Your task to perform on an android device: Show me popular games on the Play Store Image 0: 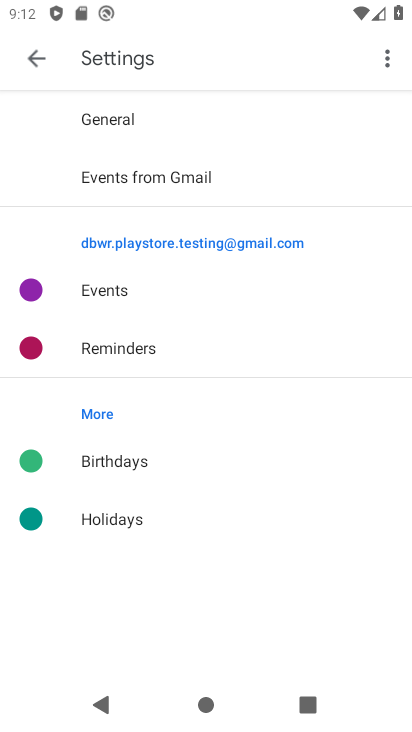
Step 0: press home button
Your task to perform on an android device: Show me popular games on the Play Store Image 1: 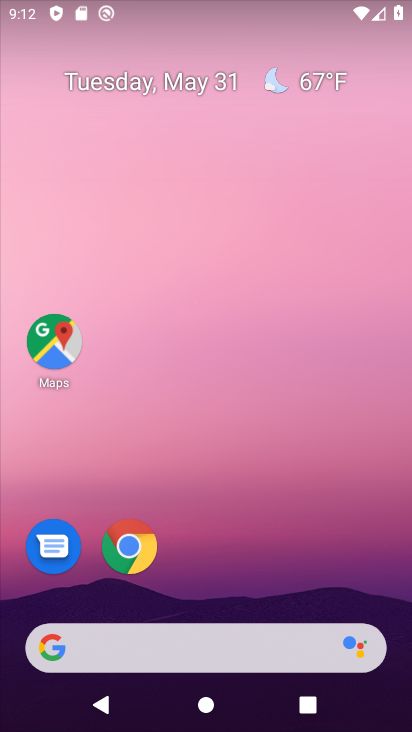
Step 1: drag from (205, 586) to (269, 180)
Your task to perform on an android device: Show me popular games on the Play Store Image 2: 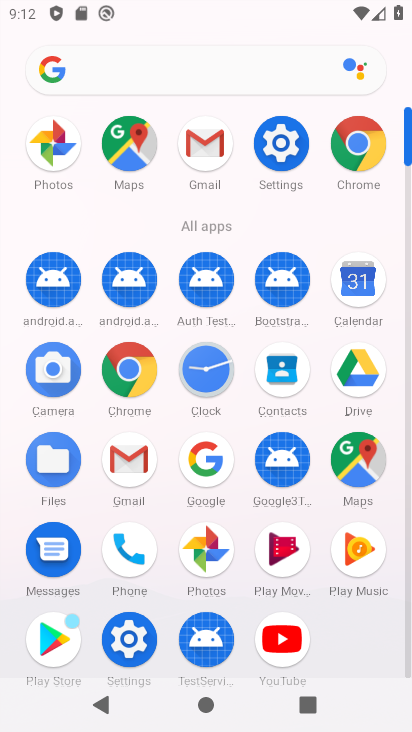
Step 2: click (45, 639)
Your task to perform on an android device: Show me popular games on the Play Store Image 3: 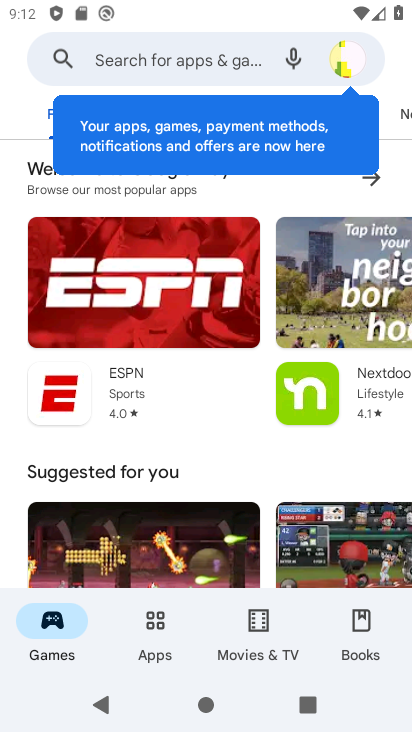
Step 3: drag from (19, 131) to (43, 168)
Your task to perform on an android device: Show me popular games on the Play Store Image 4: 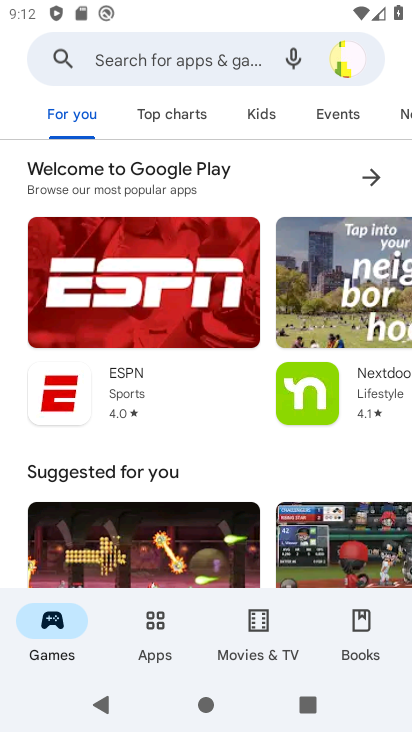
Step 4: click (196, 118)
Your task to perform on an android device: Show me popular games on the Play Store Image 5: 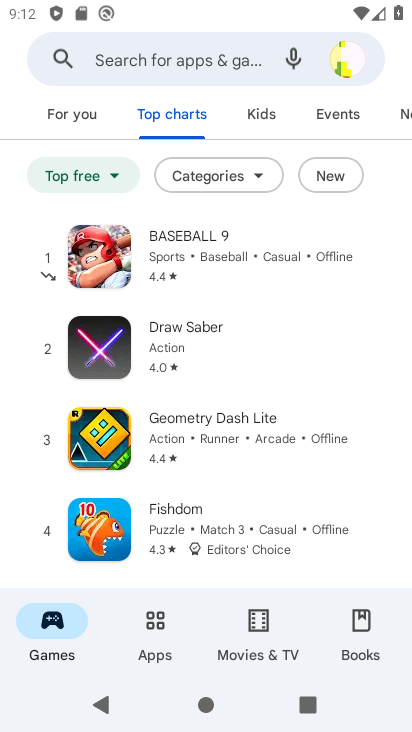
Step 5: task complete